Your task to perform on an android device: uninstall "Booking.com: Hotels and more" Image 0: 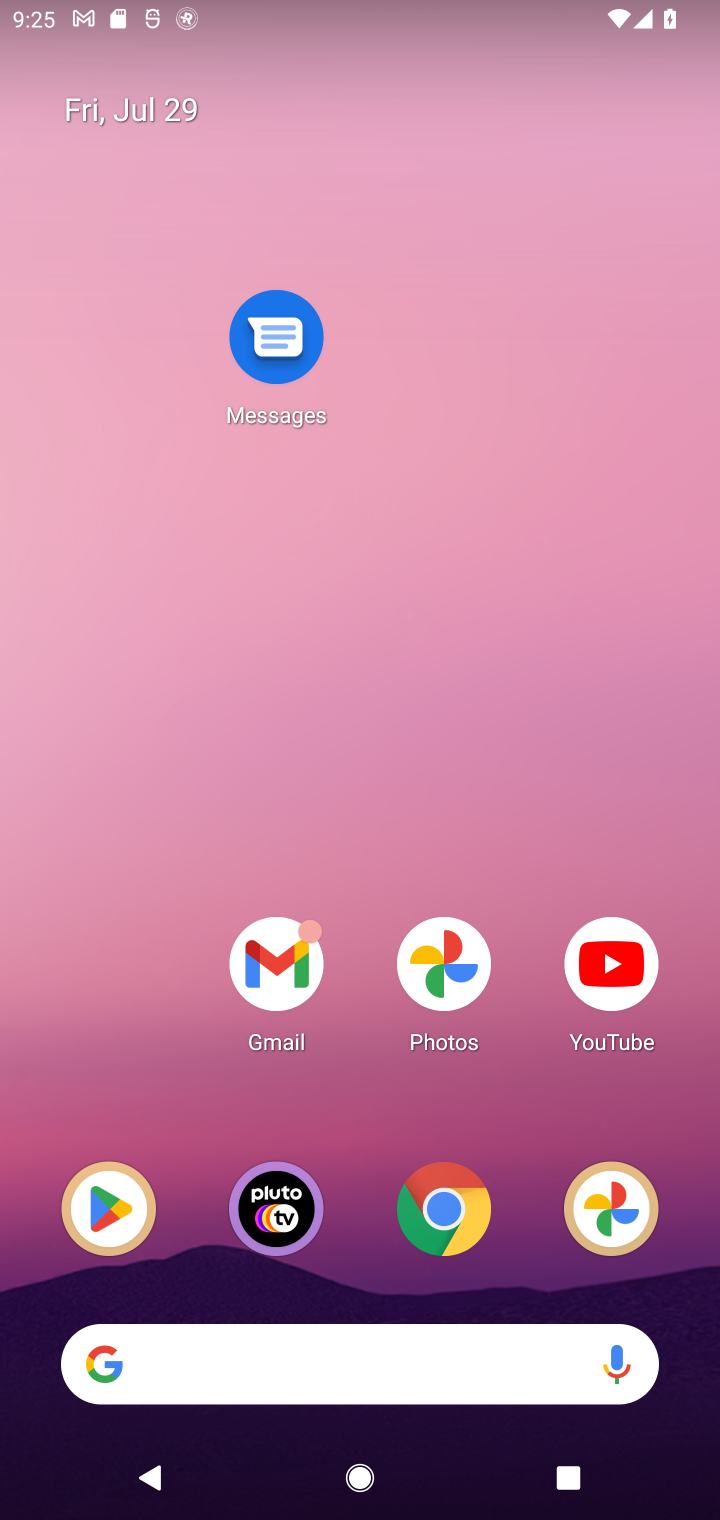
Step 0: drag from (279, 1343) to (304, 211)
Your task to perform on an android device: uninstall "Booking.com: Hotels and more" Image 1: 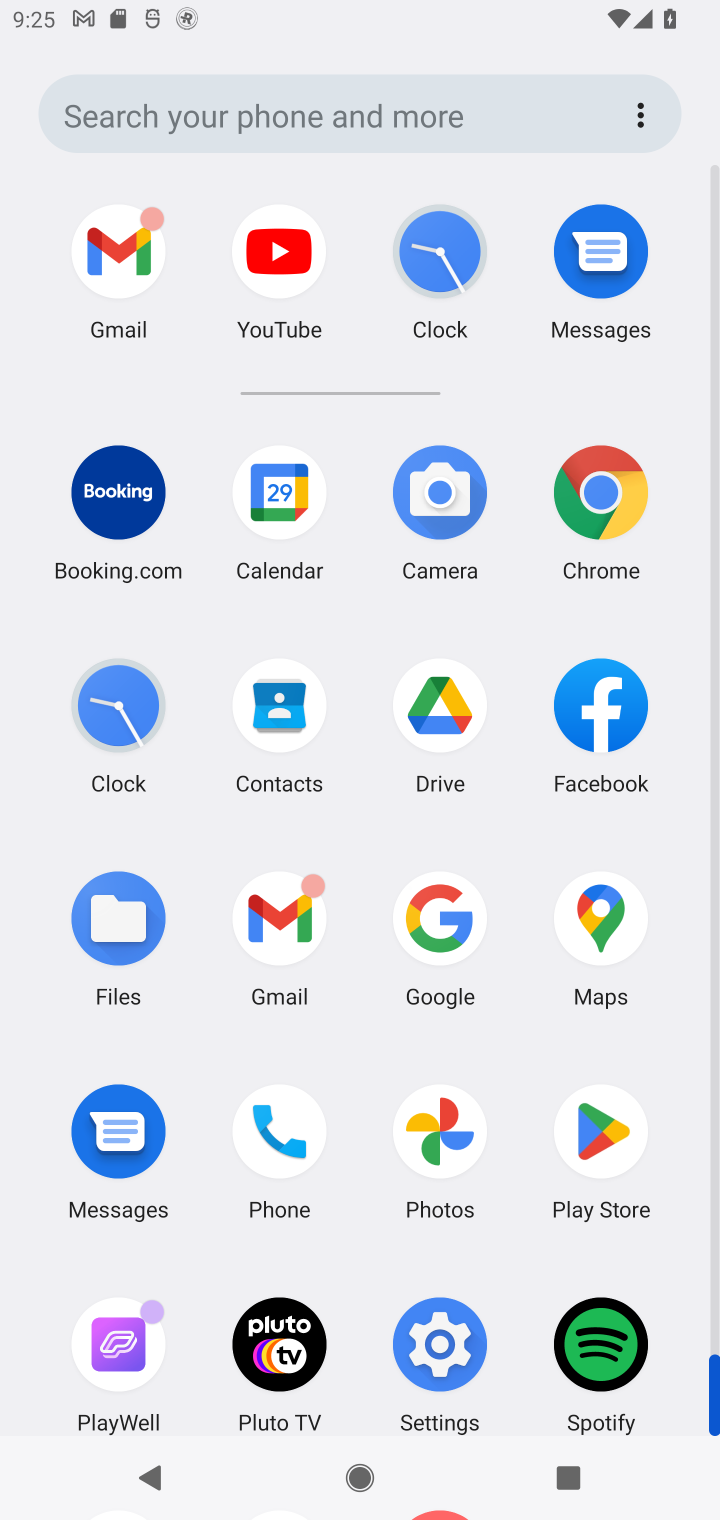
Step 1: drag from (567, 1043) to (13, 656)
Your task to perform on an android device: uninstall "Booking.com: Hotels and more" Image 2: 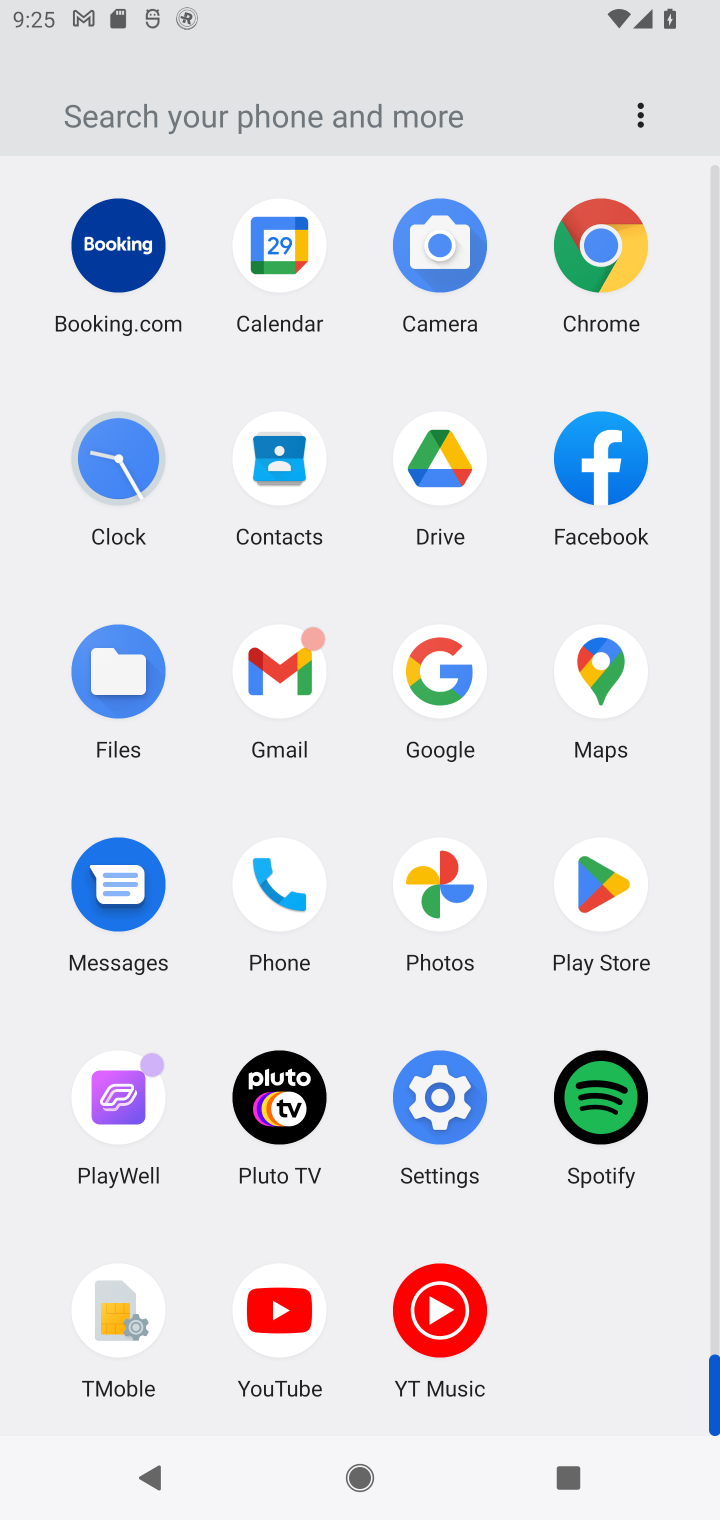
Step 2: click (613, 884)
Your task to perform on an android device: uninstall "Booking.com: Hotels and more" Image 3: 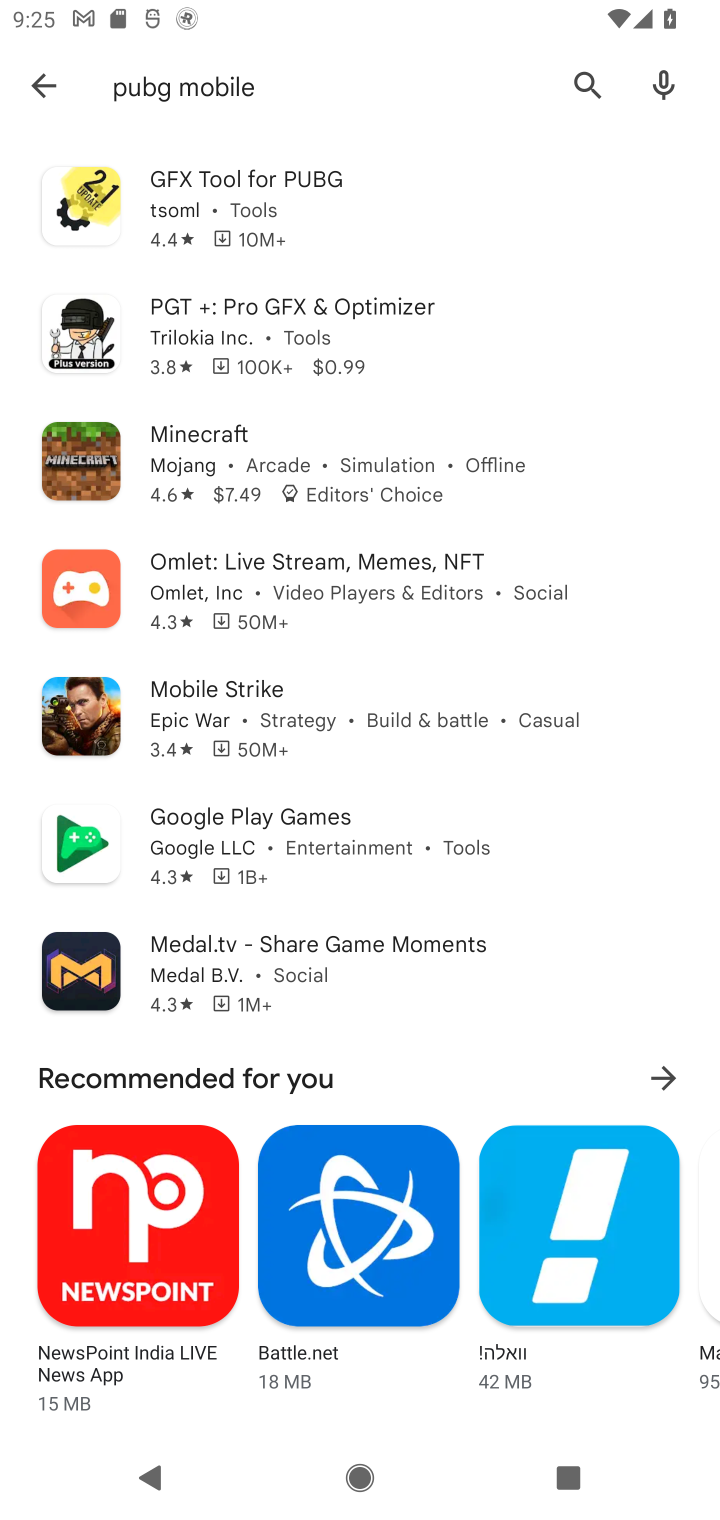
Step 3: click (588, 85)
Your task to perform on an android device: uninstall "Booking.com: Hotels and more" Image 4: 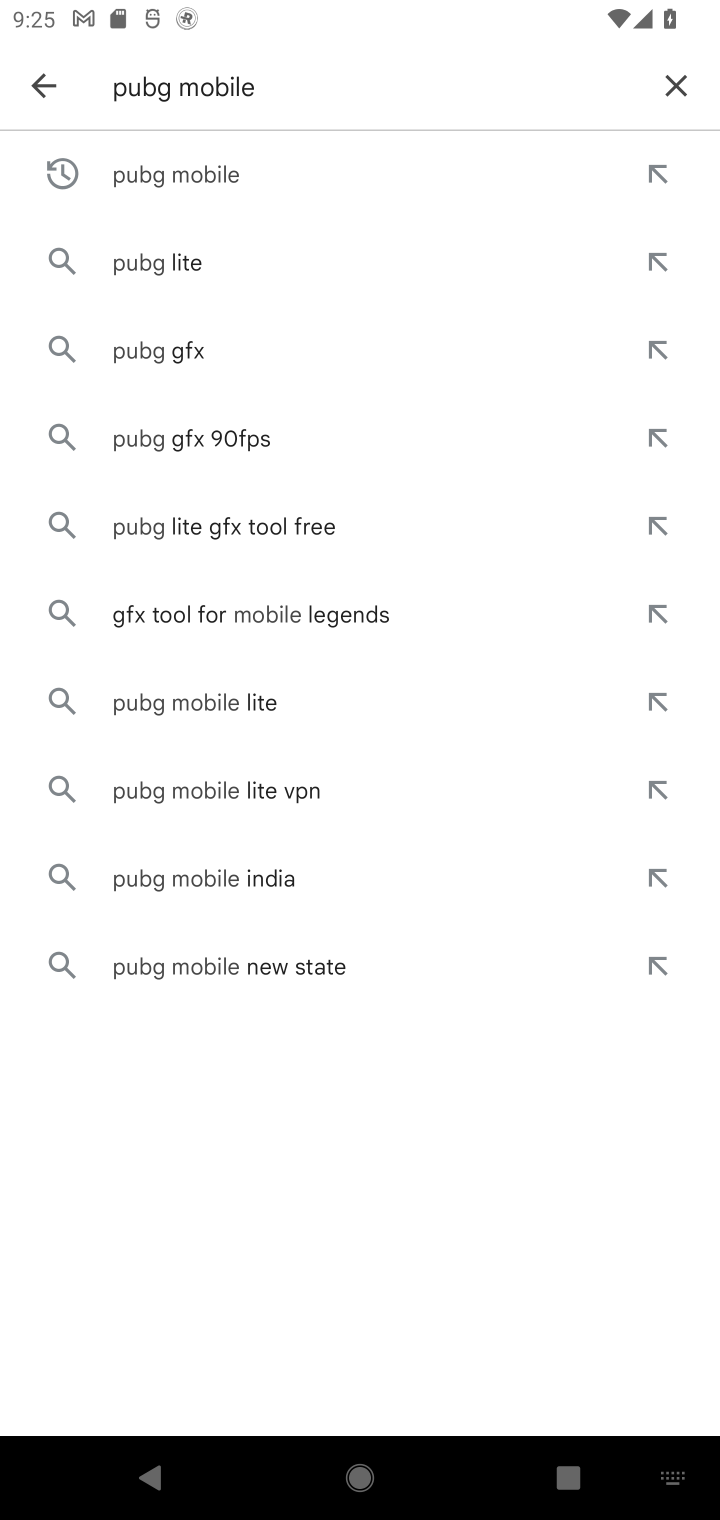
Step 4: click (672, 77)
Your task to perform on an android device: uninstall "Booking.com: Hotels and more" Image 5: 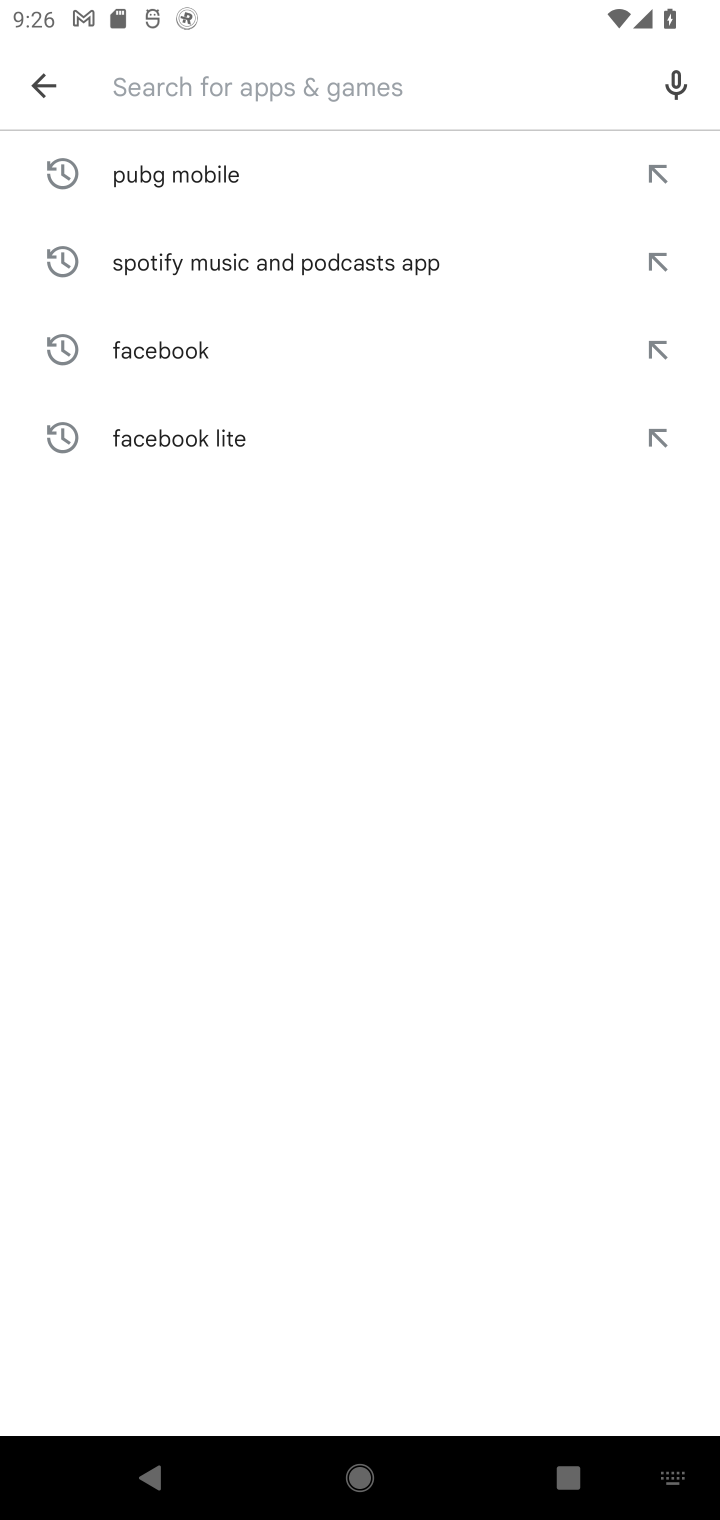
Step 5: click (260, 95)
Your task to perform on an android device: uninstall "Booking.com: Hotels and more" Image 6: 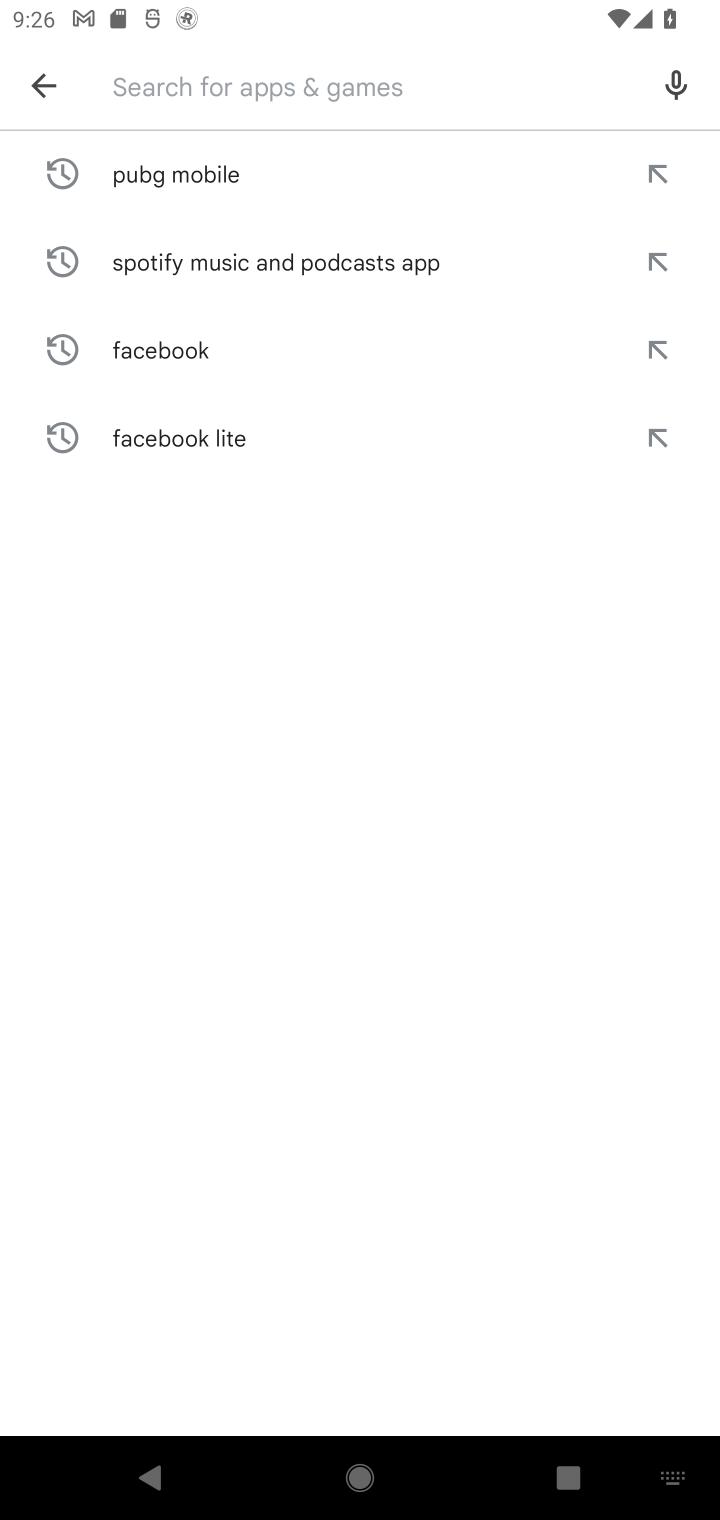
Step 6: type "Booking.com: Hotels and more"
Your task to perform on an android device: uninstall "Booking.com: Hotels and more" Image 7: 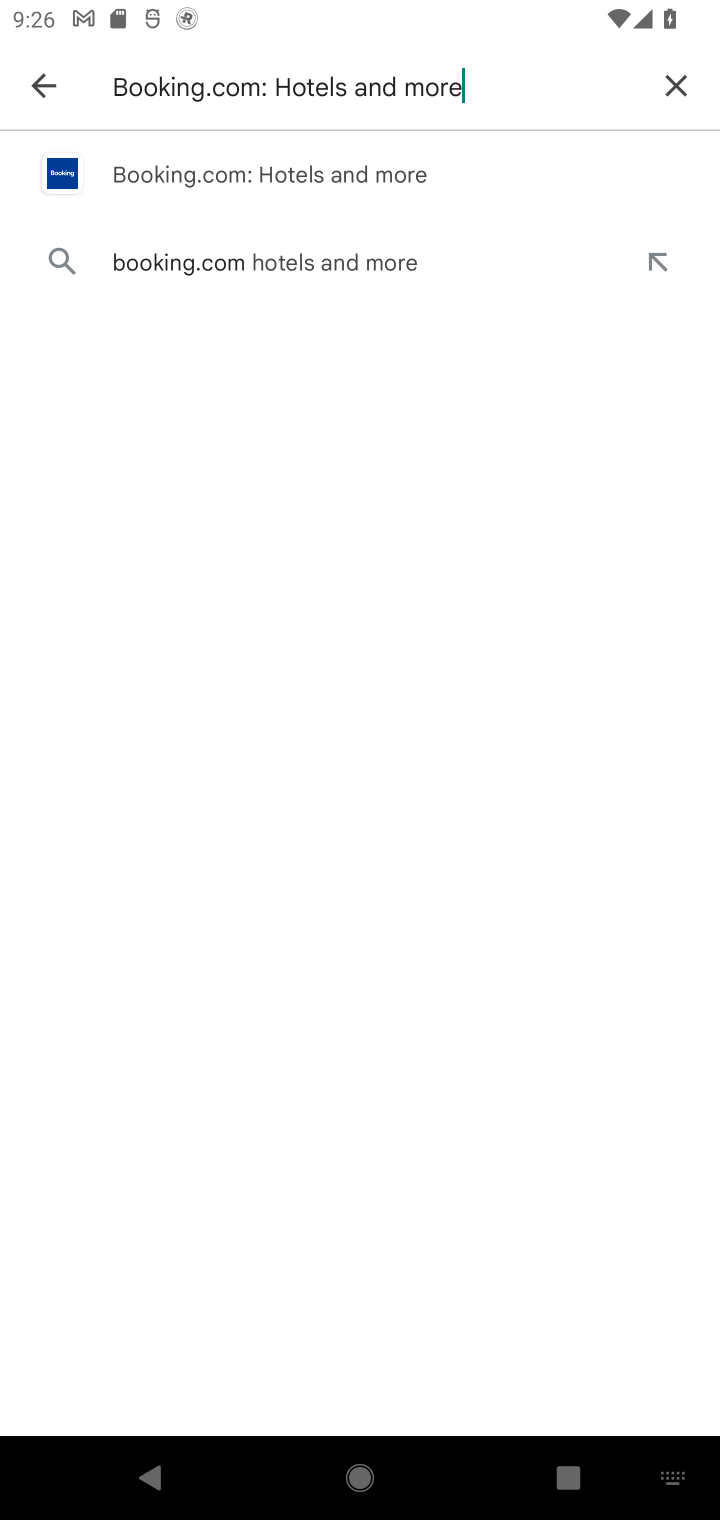
Step 7: click (235, 183)
Your task to perform on an android device: uninstall "Booking.com: Hotels and more" Image 8: 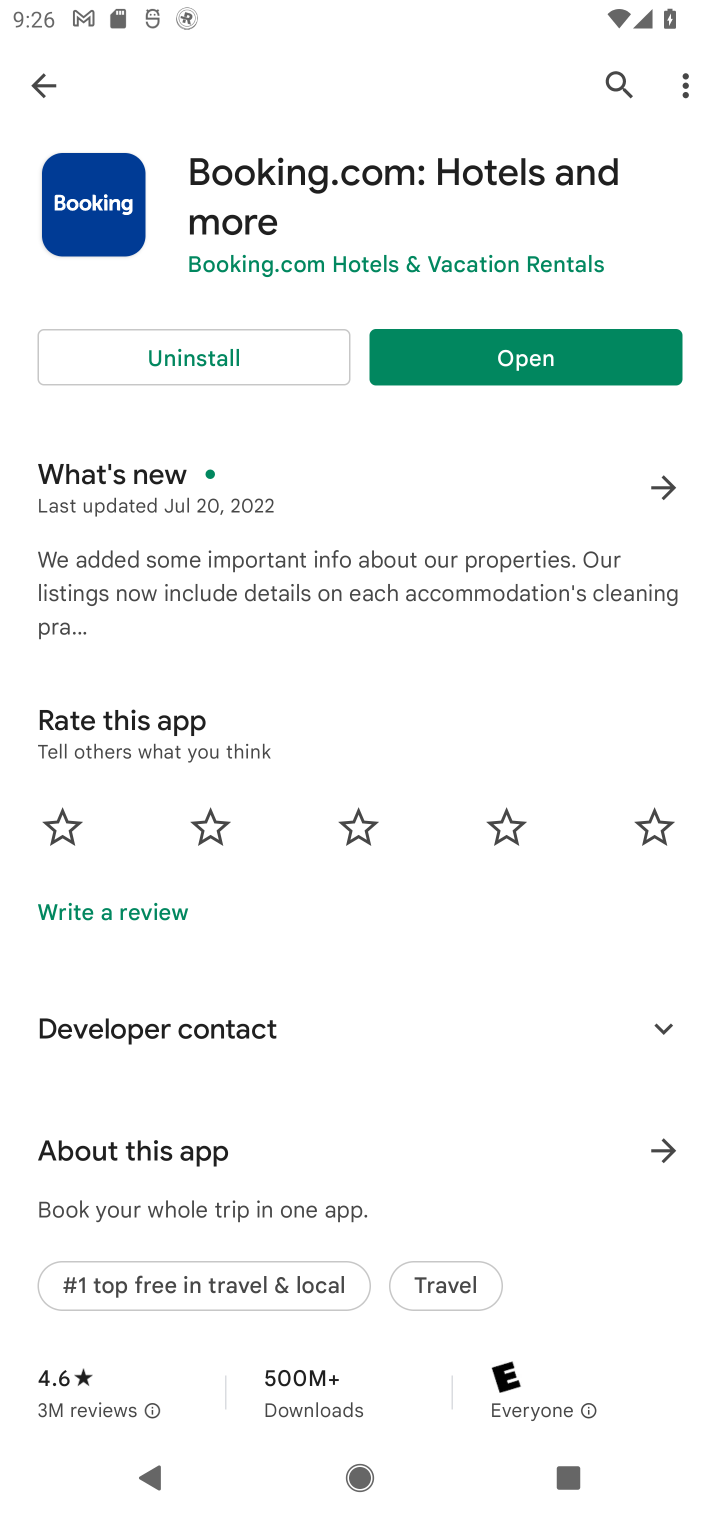
Step 8: click (189, 371)
Your task to perform on an android device: uninstall "Booking.com: Hotels and more" Image 9: 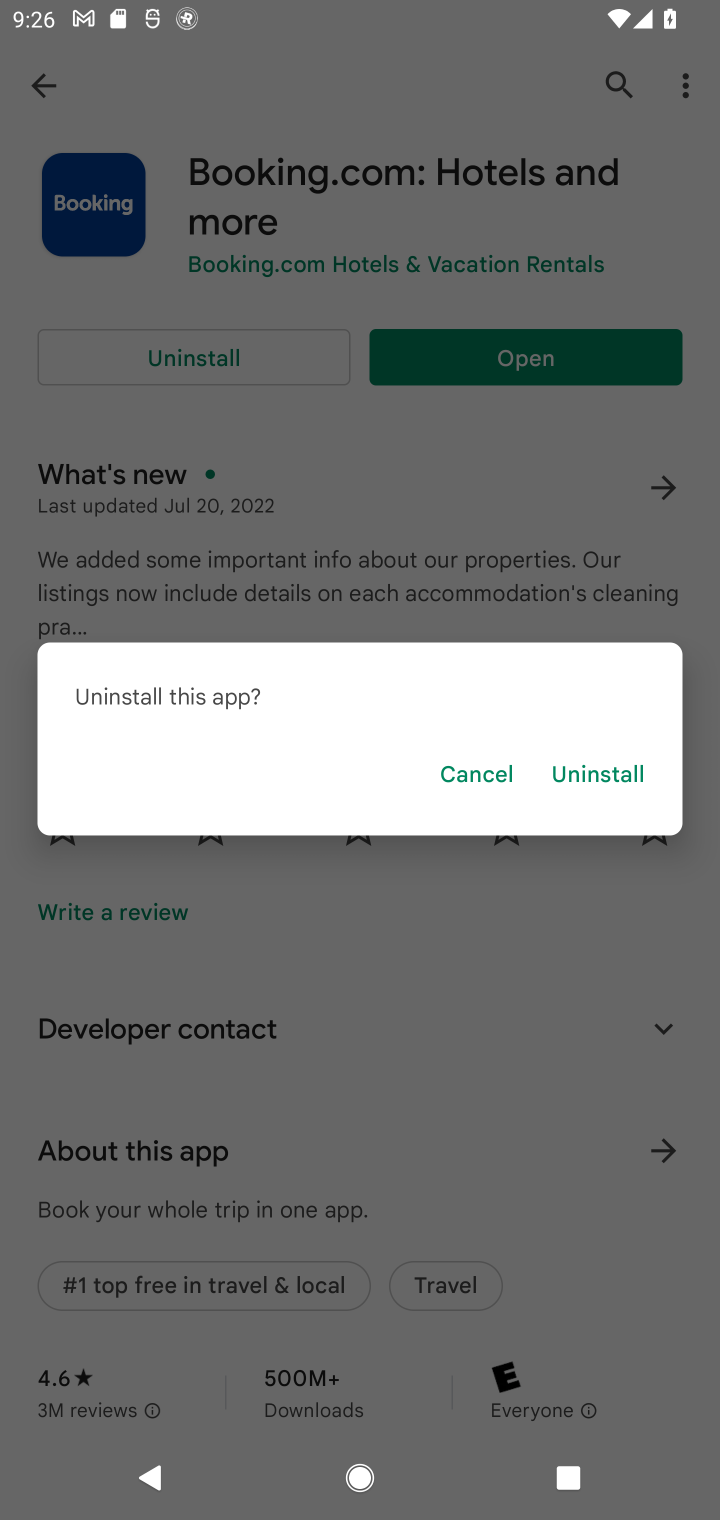
Step 9: click (598, 764)
Your task to perform on an android device: uninstall "Booking.com: Hotels and more" Image 10: 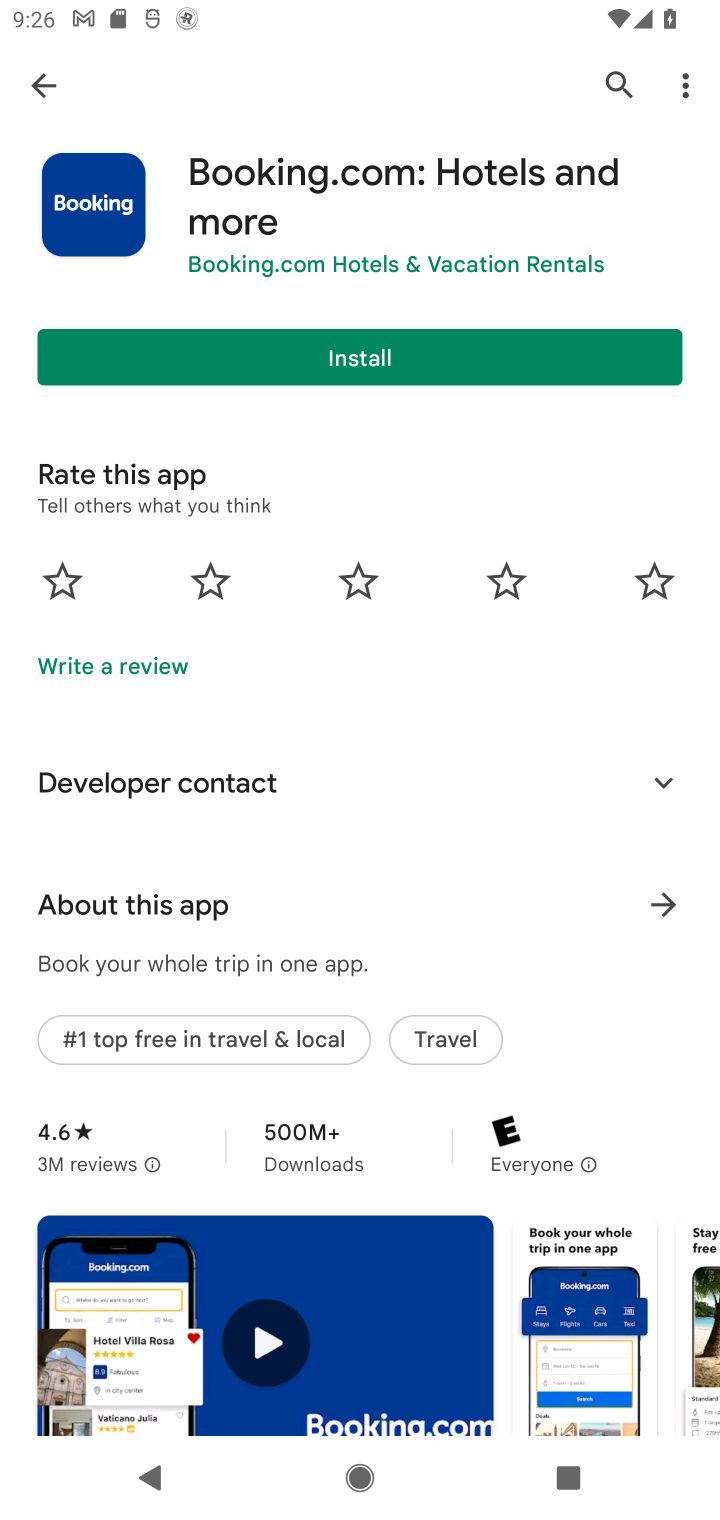
Step 10: task complete